Your task to perform on an android device: toggle translation in the chrome app Image 0: 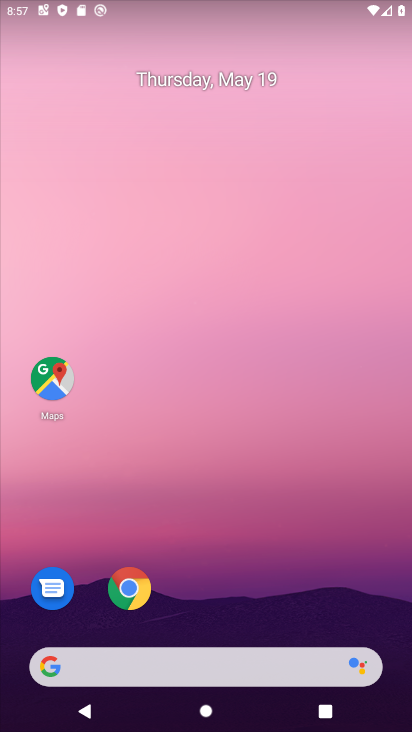
Step 0: click (134, 587)
Your task to perform on an android device: toggle translation in the chrome app Image 1: 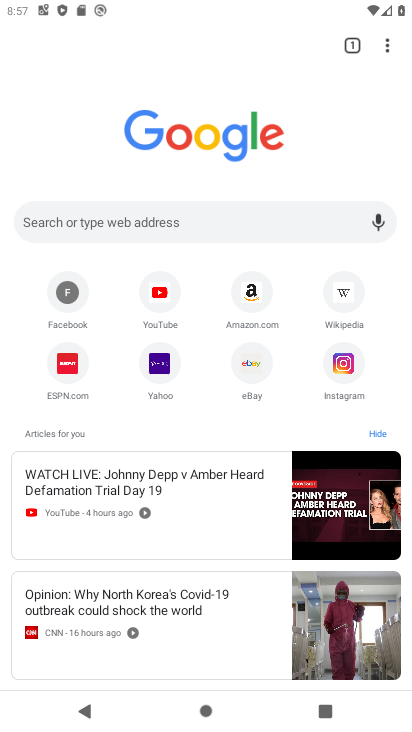
Step 1: drag from (386, 52) to (247, 381)
Your task to perform on an android device: toggle translation in the chrome app Image 2: 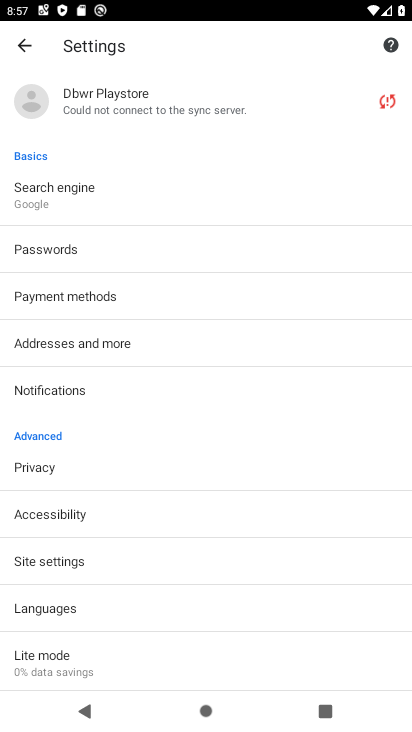
Step 2: click (56, 605)
Your task to perform on an android device: toggle translation in the chrome app Image 3: 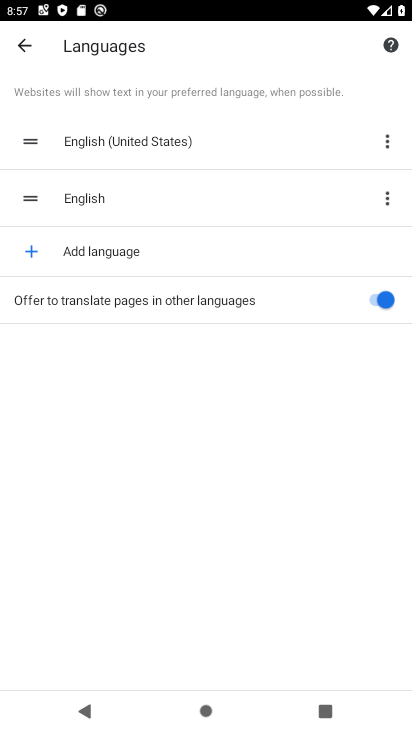
Step 3: click (379, 294)
Your task to perform on an android device: toggle translation in the chrome app Image 4: 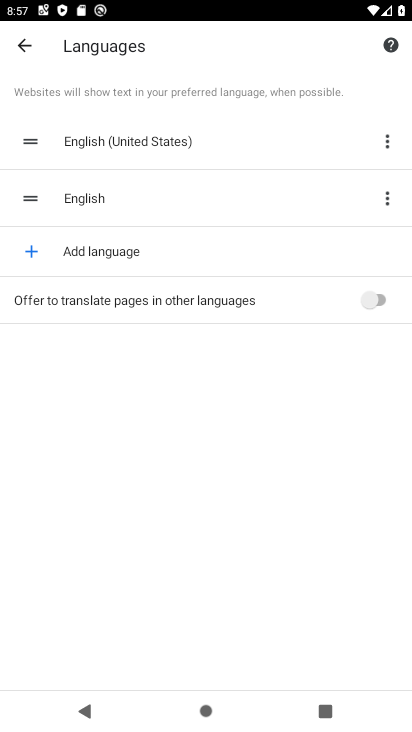
Step 4: task complete